Your task to perform on an android device: turn off javascript in the chrome app Image 0: 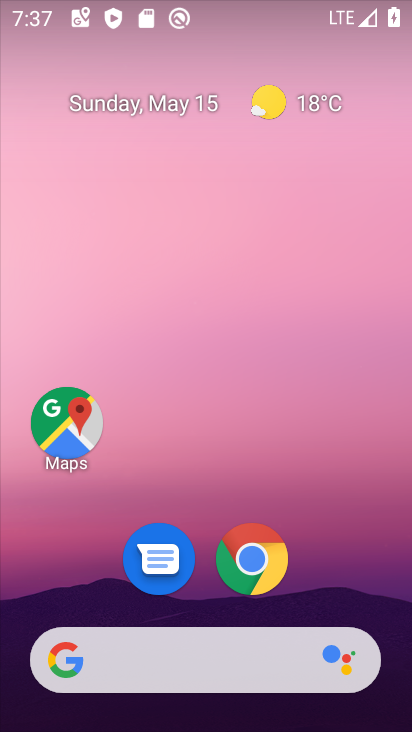
Step 0: click (254, 554)
Your task to perform on an android device: turn off javascript in the chrome app Image 1: 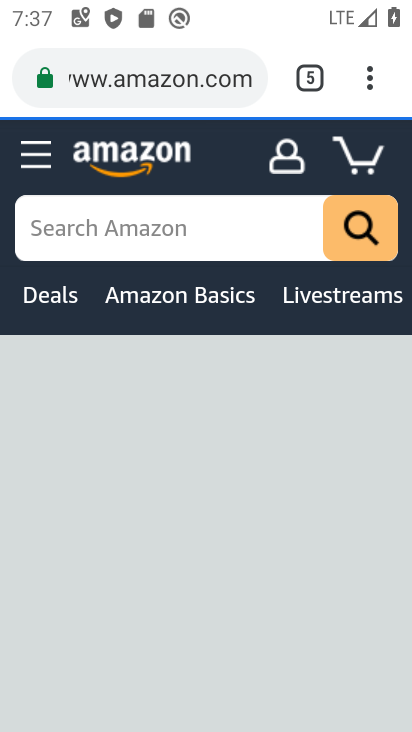
Step 1: click (371, 80)
Your task to perform on an android device: turn off javascript in the chrome app Image 2: 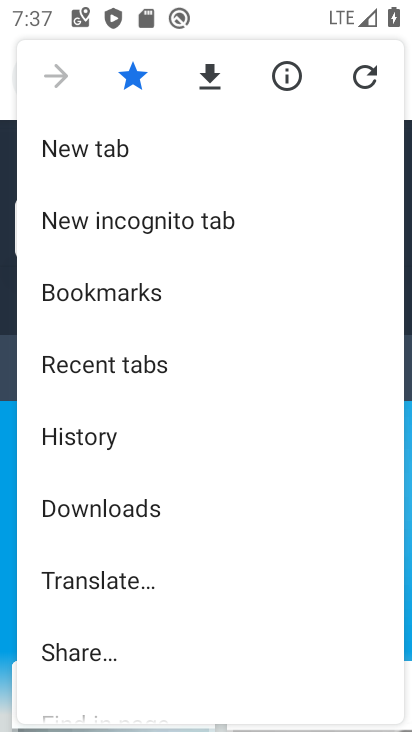
Step 2: drag from (221, 577) to (177, 257)
Your task to perform on an android device: turn off javascript in the chrome app Image 3: 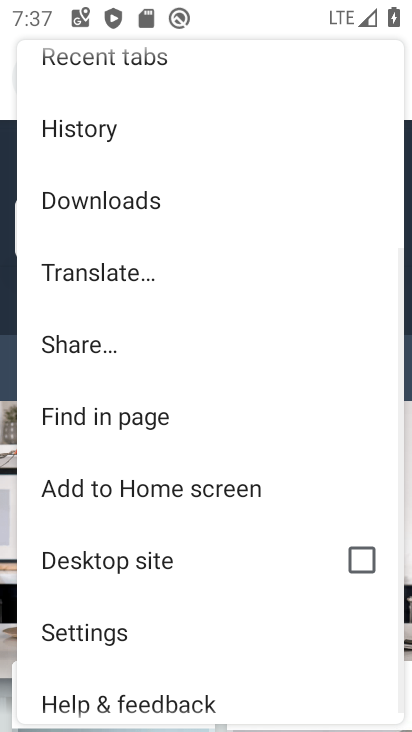
Step 3: click (93, 629)
Your task to perform on an android device: turn off javascript in the chrome app Image 4: 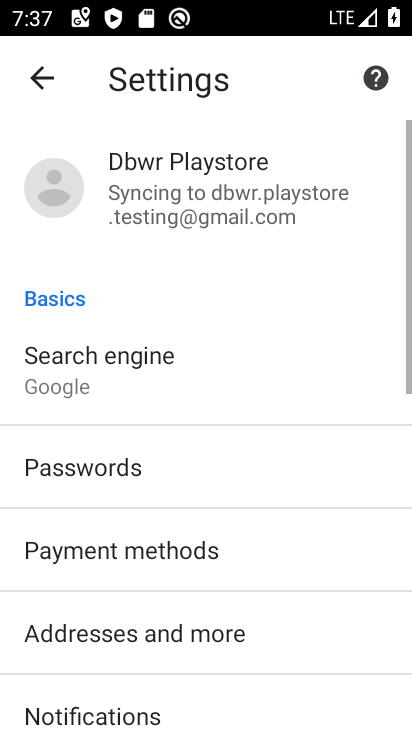
Step 4: drag from (280, 509) to (253, 145)
Your task to perform on an android device: turn off javascript in the chrome app Image 5: 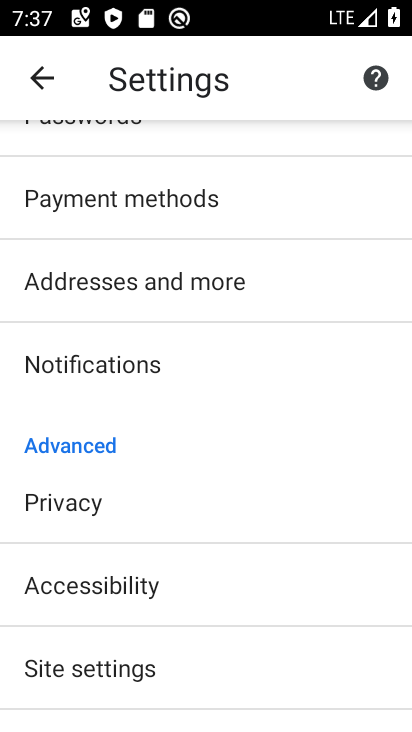
Step 5: drag from (262, 569) to (184, 294)
Your task to perform on an android device: turn off javascript in the chrome app Image 6: 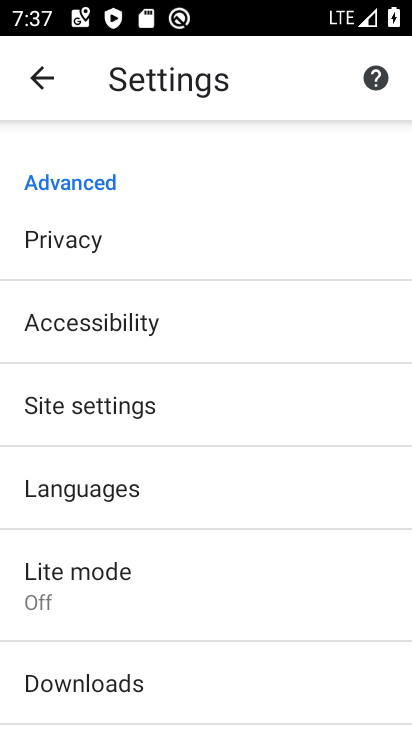
Step 6: click (86, 405)
Your task to perform on an android device: turn off javascript in the chrome app Image 7: 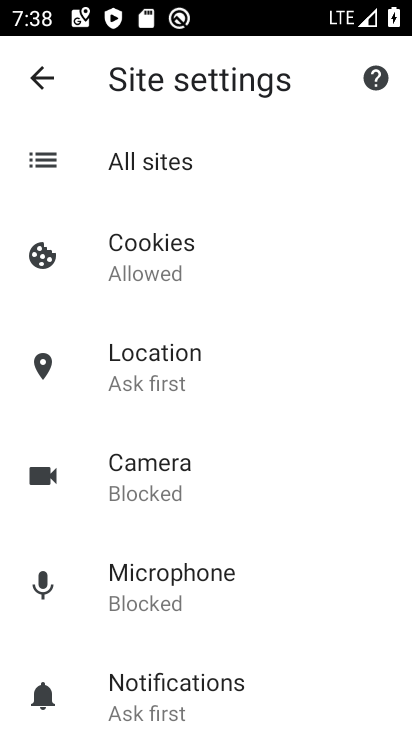
Step 7: drag from (248, 639) to (226, 307)
Your task to perform on an android device: turn off javascript in the chrome app Image 8: 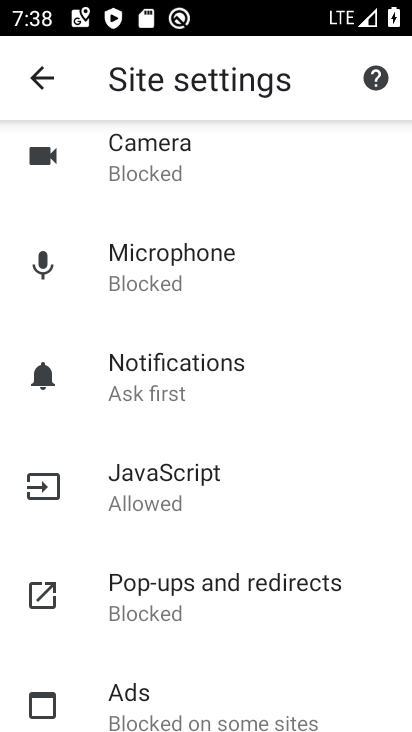
Step 8: click (185, 476)
Your task to perform on an android device: turn off javascript in the chrome app Image 9: 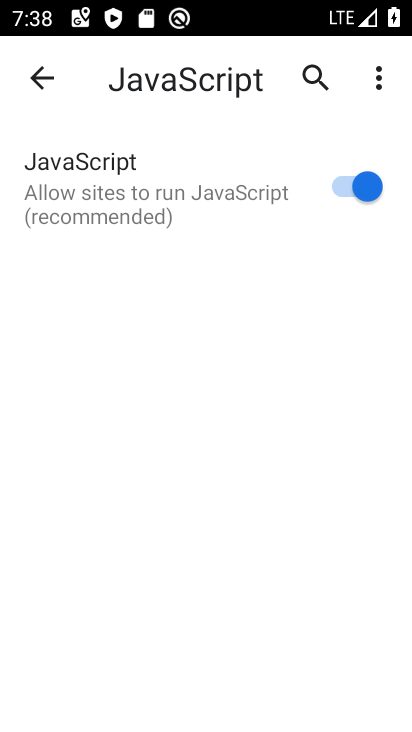
Step 9: click (354, 187)
Your task to perform on an android device: turn off javascript in the chrome app Image 10: 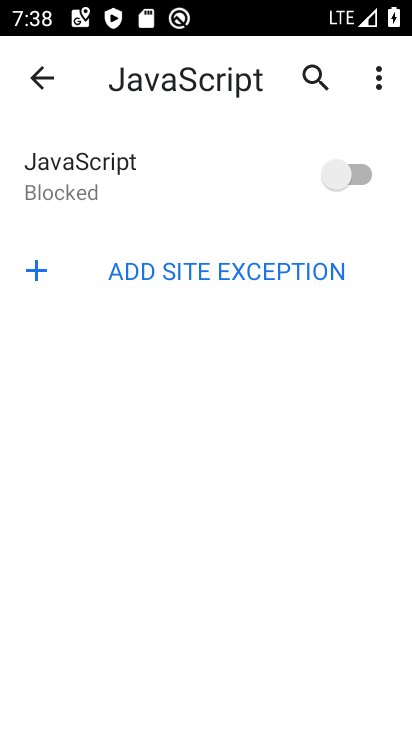
Step 10: task complete